Your task to perform on an android device: Go to battery settings Image 0: 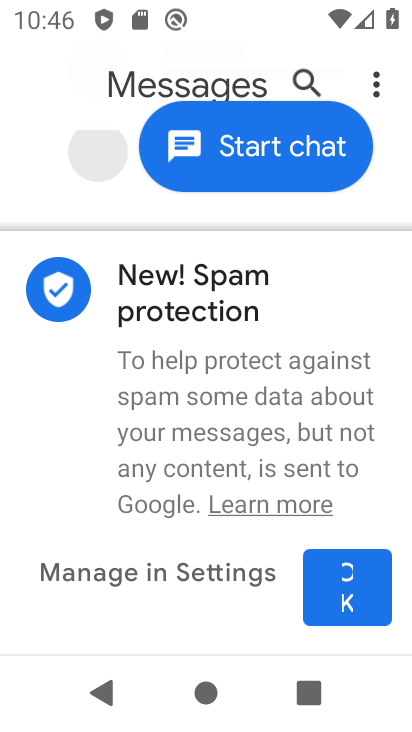
Step 0: press home button
Your task to perform on an android device: Go to battery settings Image 1: 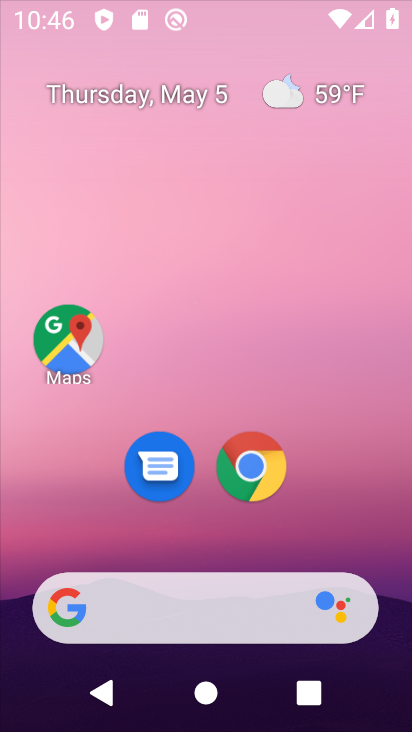
Step 1: drag from (310, 581) to (275, 12)
Your task to perform on an android device: Go to battery settings Image 2: 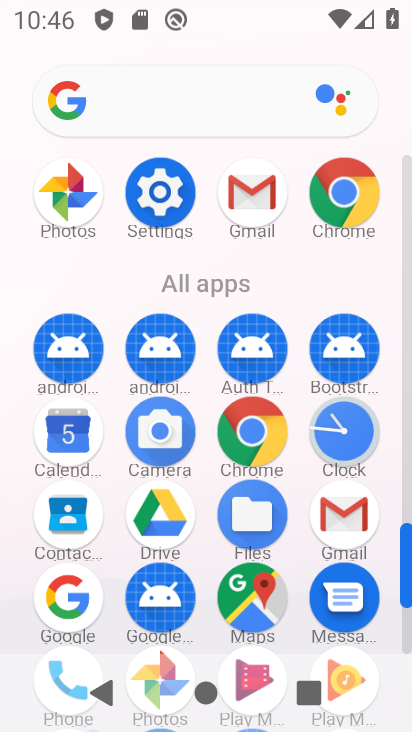
Step 2: click (180, 210)
Your task to perform on an android device: Go to battery settings Image 3: 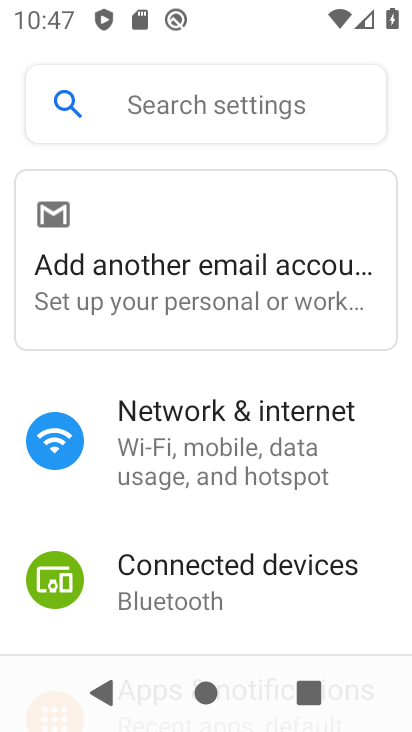
Step 3: drag from (233, 607) to (235, 240)
Your task to perform on an android device: Go to battery settings Image 4: 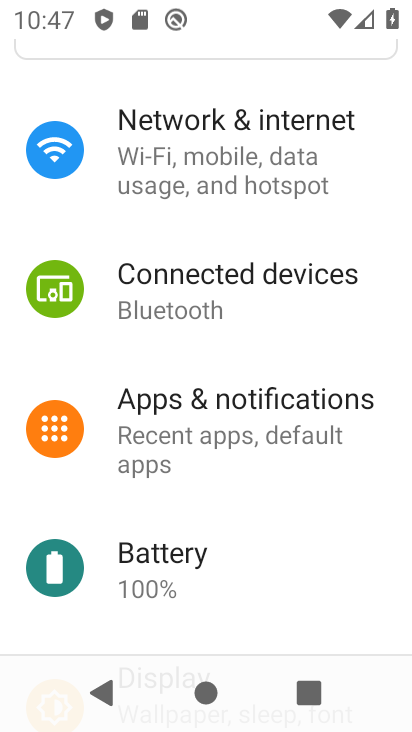
Step 4: click (195, 570)
Your task to perform on an android device: Go to battery settings Image 5: 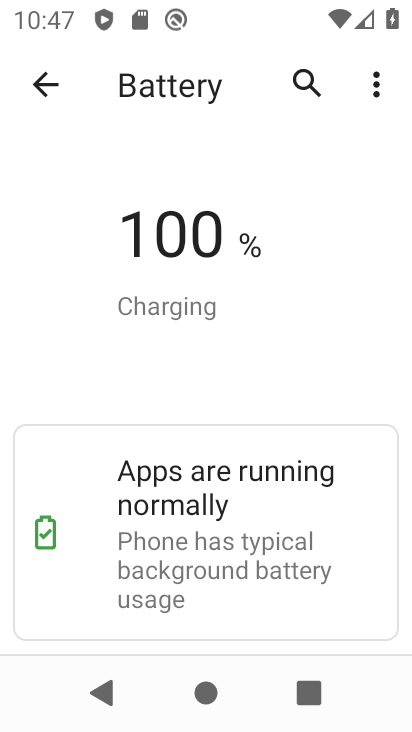
Step 5: task complete